Your task to perform on an android device: Search for "usb-c to usb-a" on walmart.com, select the first entry, add it to the cart, then select checkout. Image 0: 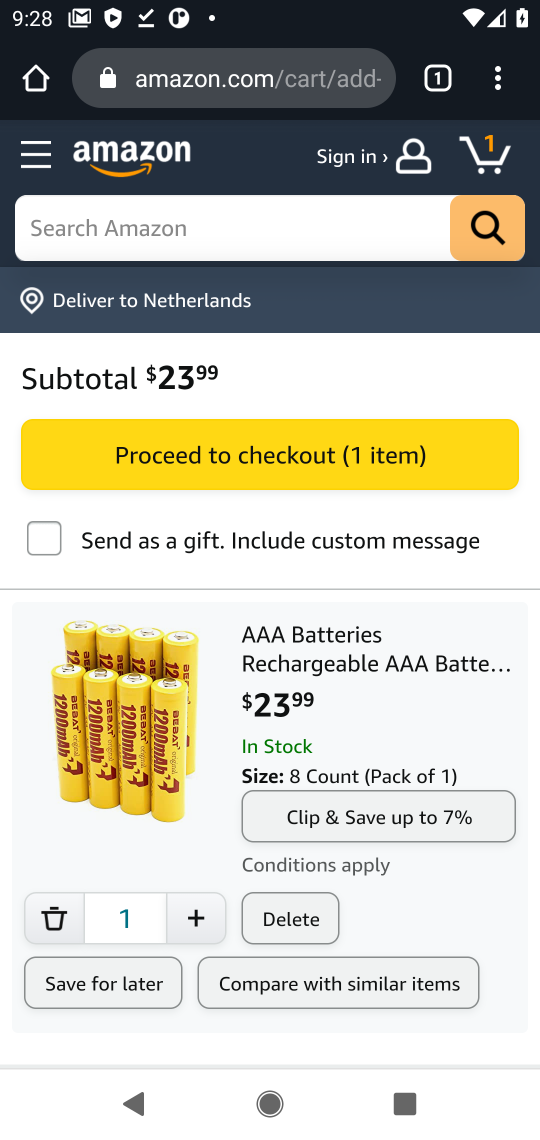
Step 0: click (264, 79)
Your task to perform on an android device: Search for "usb-c to usb-a" on walmart.com, select the first entry, add it to the cart, then select checkout. Image 1: 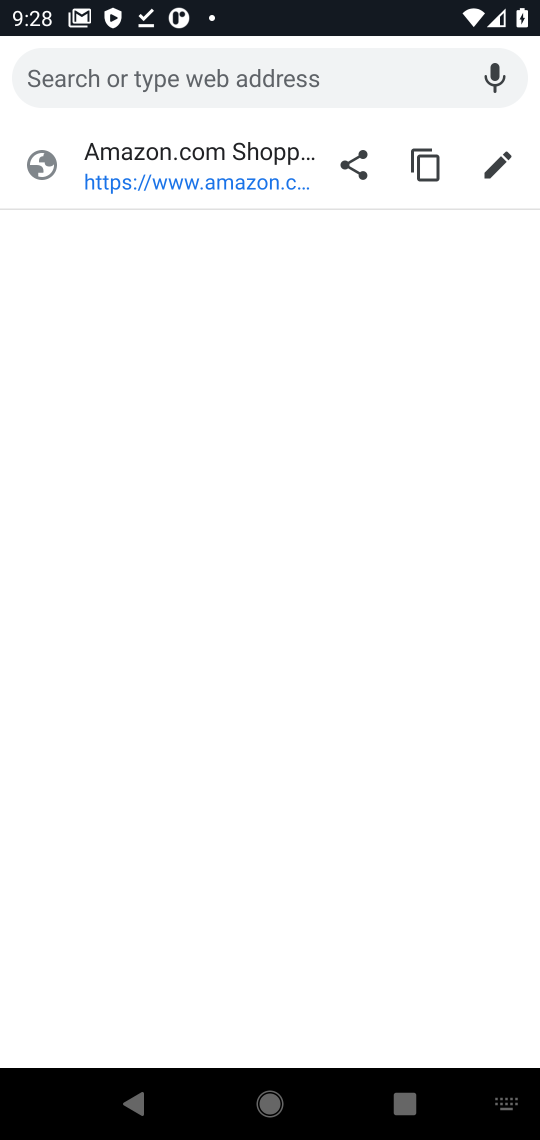
Step 1: type "walmart"
Your task to perform on an android device: Search for "usb-c to usb-a" on walmart.com, select the first entry, add it to the cart, then select checkout. Image 2: 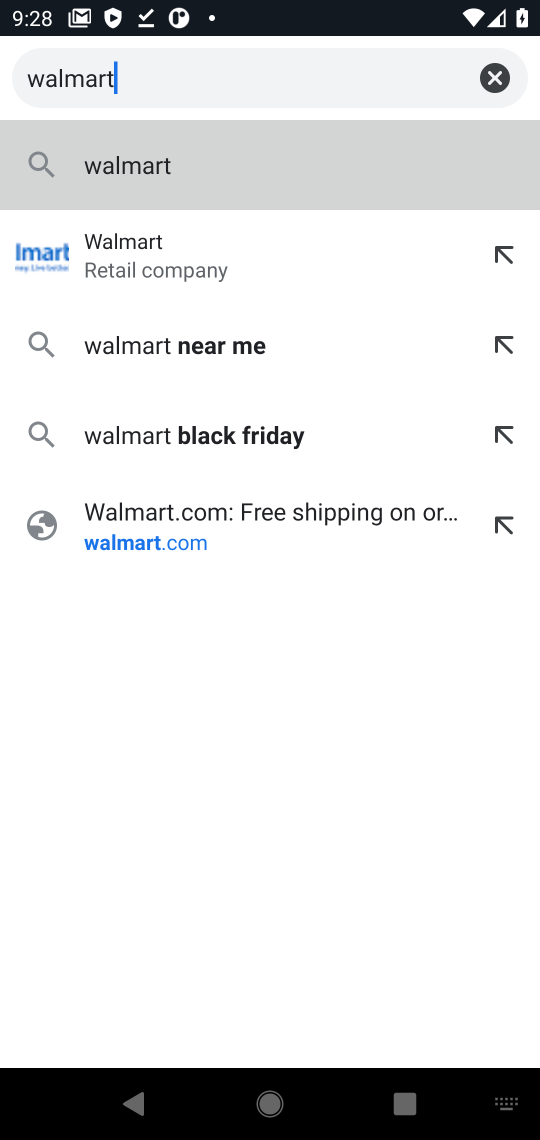
Step 2: click (149, 168)
Your task to perform on an android device: Search for "usb-c to usb-a" on walmart.com, select the first entry, add it to the cart, then select checkout. Image 3: 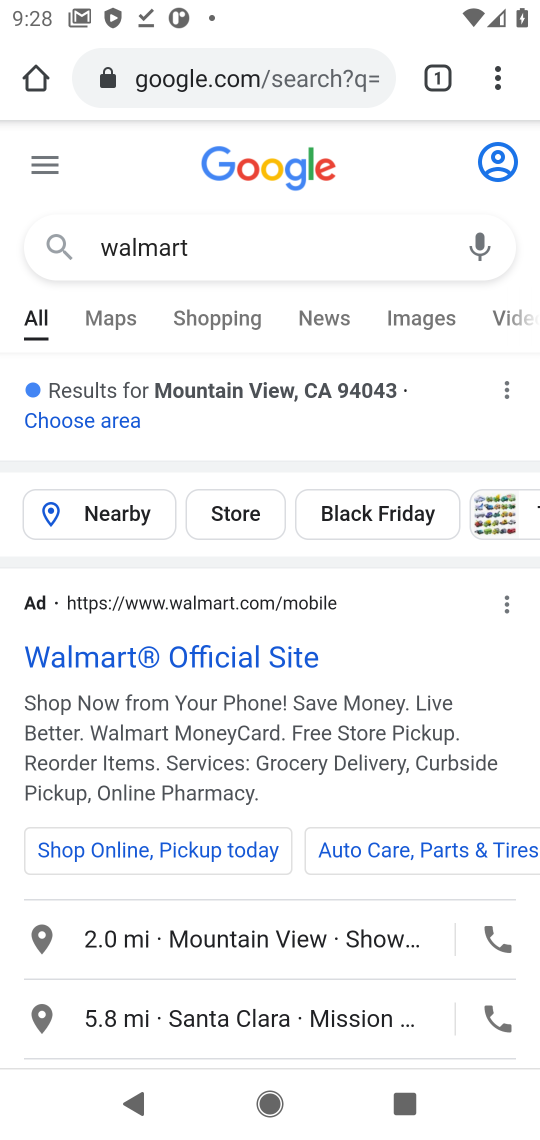
Step 3: drag from (420, 615) to (461, 107)
Your task to perform on an android device: Search for "usb-c to usb-a" on walmart.com, select the first entry, add it to the cart, then select checkout. Image 4: 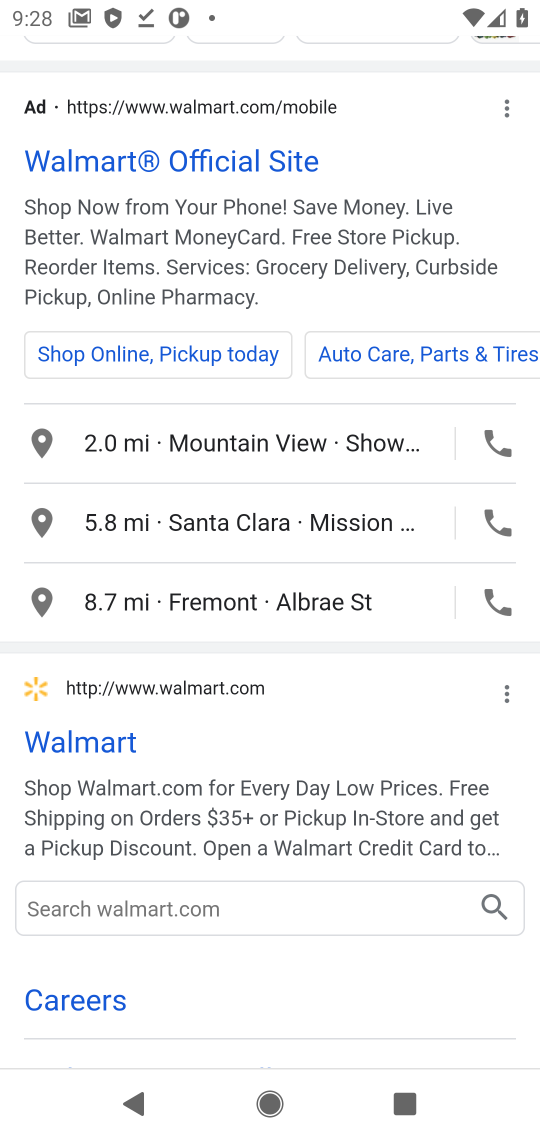
Step 4: click (77, 741)
Your task to perform on an android device: Search for "usb-c to usb-a" on walmart.com, select the first entry, add it to the cart, then select checkout. Image 5: 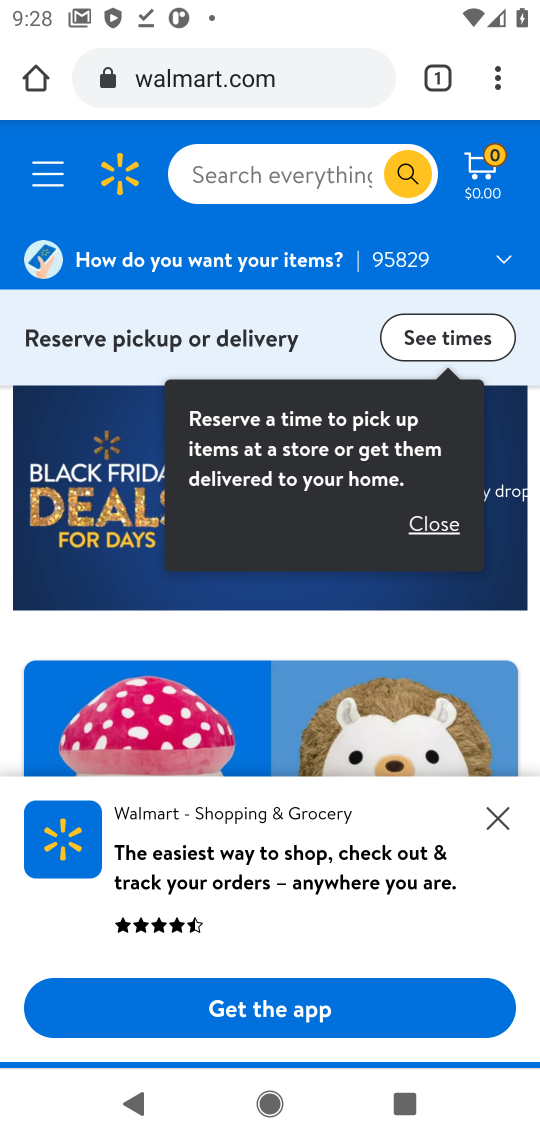
Step 5: click (294, 172)
Your task to perform on an android device: Search for "usb-c to usb-a" on walmart.com, select the first entry, add it to the cart, then select checkout. Image 6: 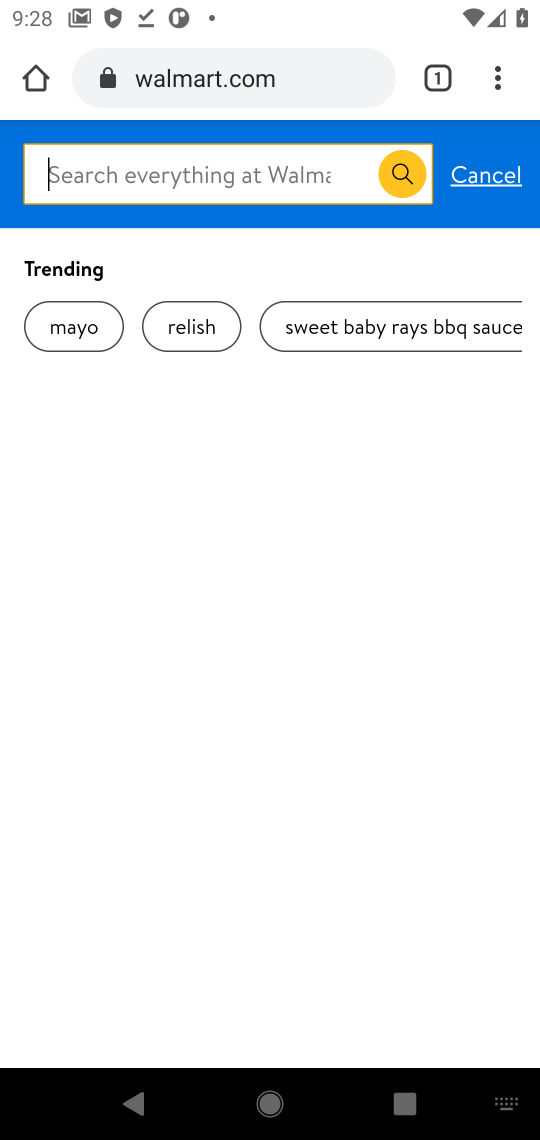
Step 6: type "usb-c to usb-a"
Your task to perform on an android device: Search for "usb-c to usb-a" on walmart.com, select the first entry, add it to the cart, then select checkout. Image 7: 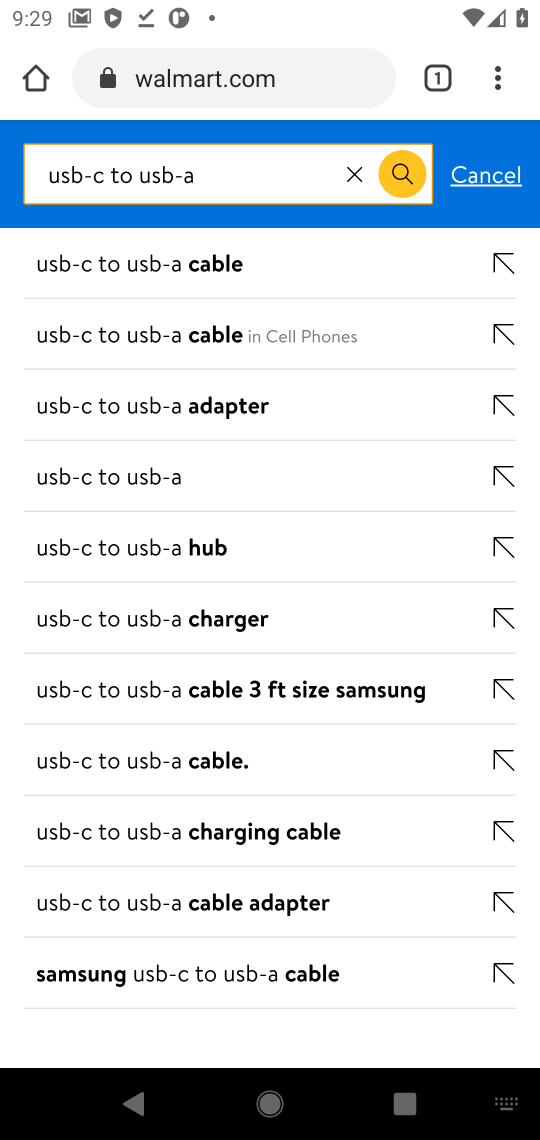
Step 7: press enter
Your task to perform on an android device: Search for "usb-c to usb-a" on walmart.com, select the first entry, add it to the cart, then select checkout. Image 8: 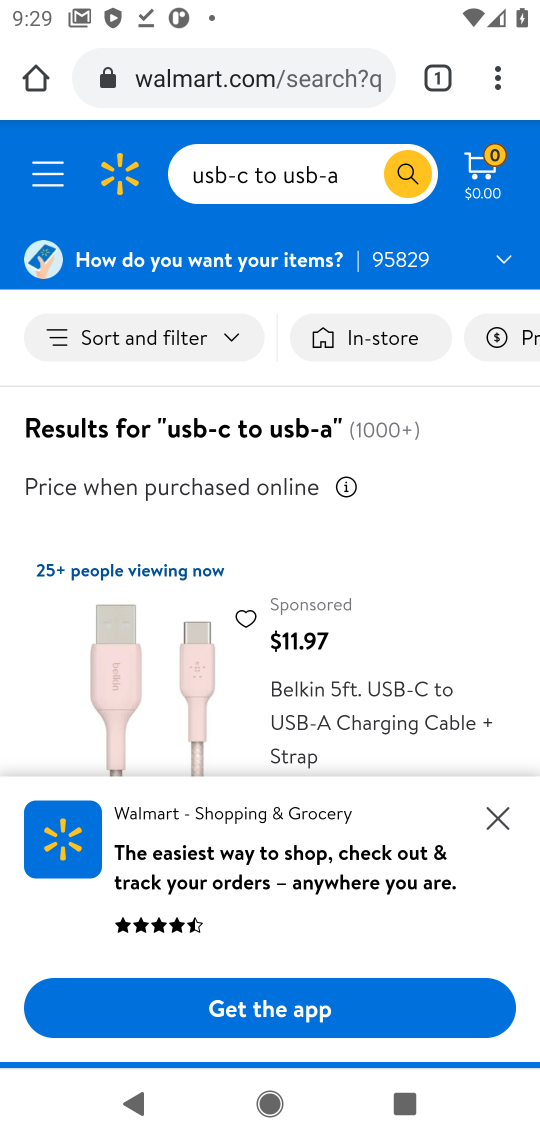
Step 8: click (159, 699)
Your task to perform on an android device: Search for "usb-c to usb-a" on walmart.com, select the first entry, add it to the cart, then select checkout. Image 9: 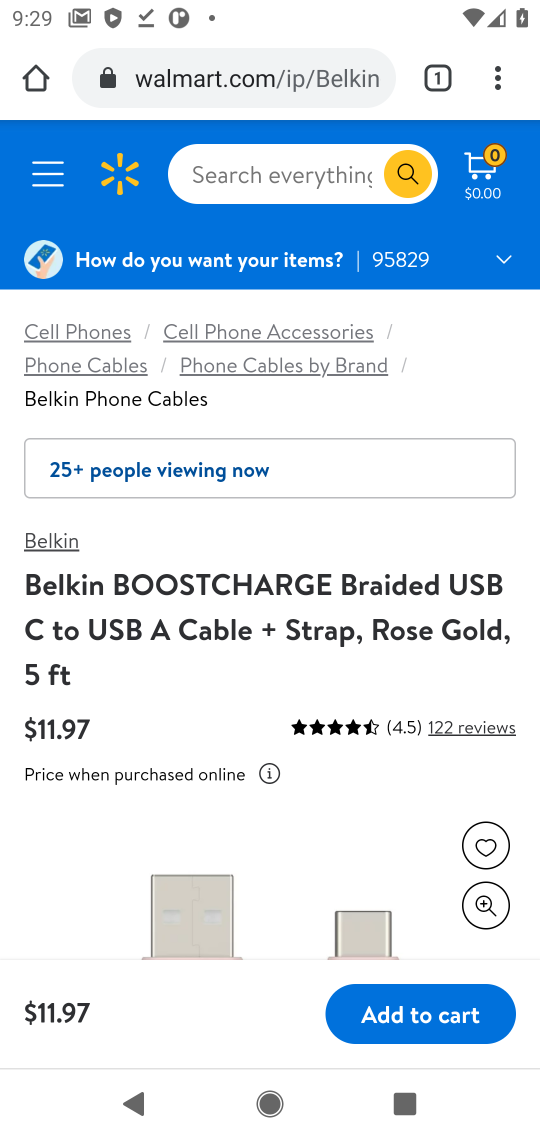
Step 9: drag from (332, 815) to (354, 518)
Your task to perform on an android device: Search for "usb-c to usb-a" on walmart.com, select the first entry, add it to the cart, then select checkout. Image 10: 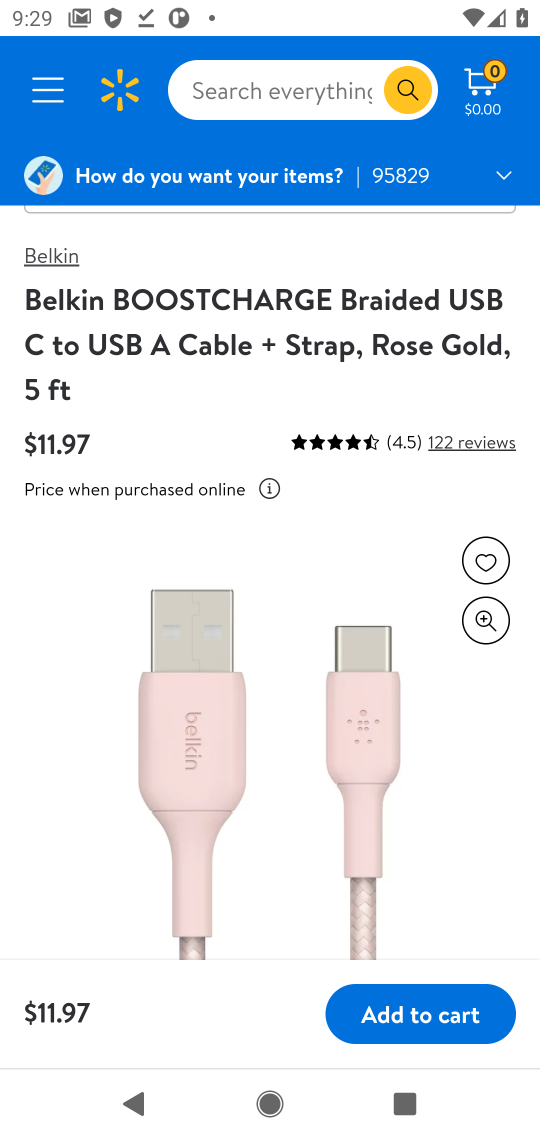
Step 10: click (431, 1009)
Your task to perform on an android device: Search for "usb-c to usb-a" on walmart.com, select the first entry, add it to the cart, then select checkout. Image 11: 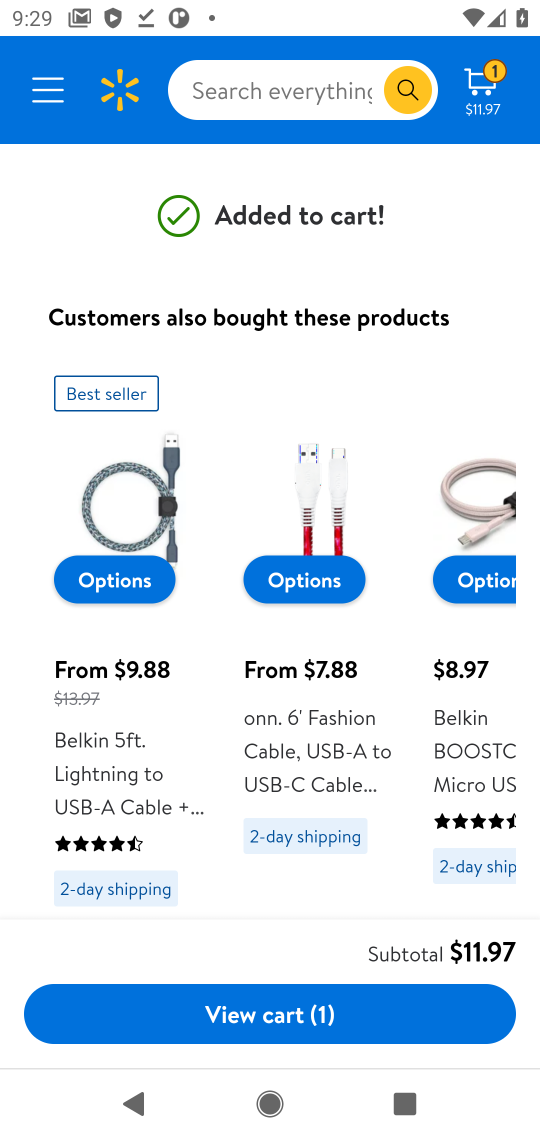
Step 11: click (321, 1017)
Your task to perform on an android device: Search for "usb-c to usb-a" on walmart.com, select the first entry, add it to the cart, then select checkout. Image 12: 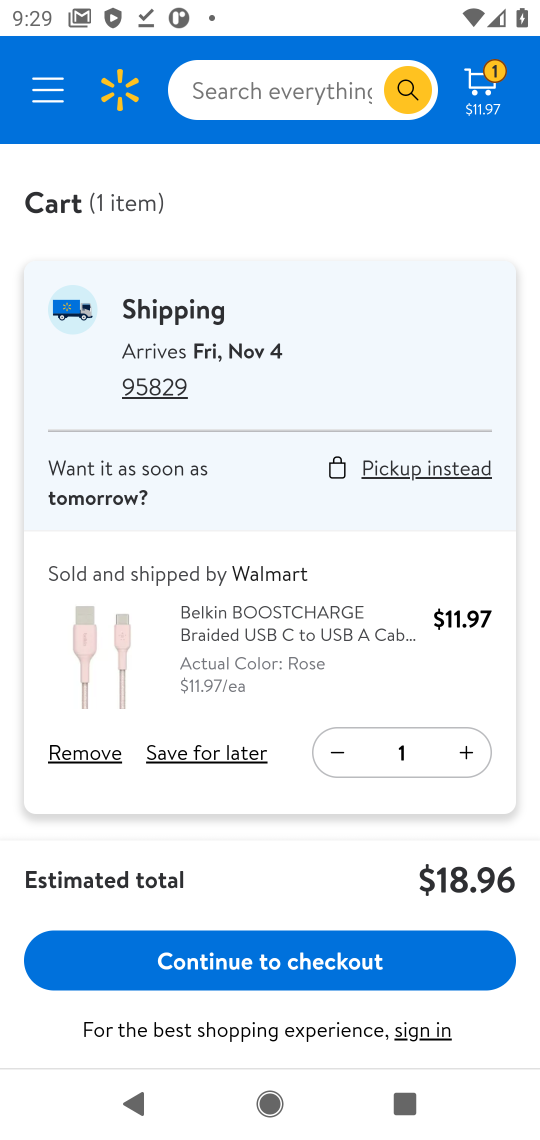
Step 12: click (262, 968)
Your task to perform on an android device: Search for "usb-c to usb-a" on walmart.com, select the first entry, add it to the cart, then select checkout. Image 13: 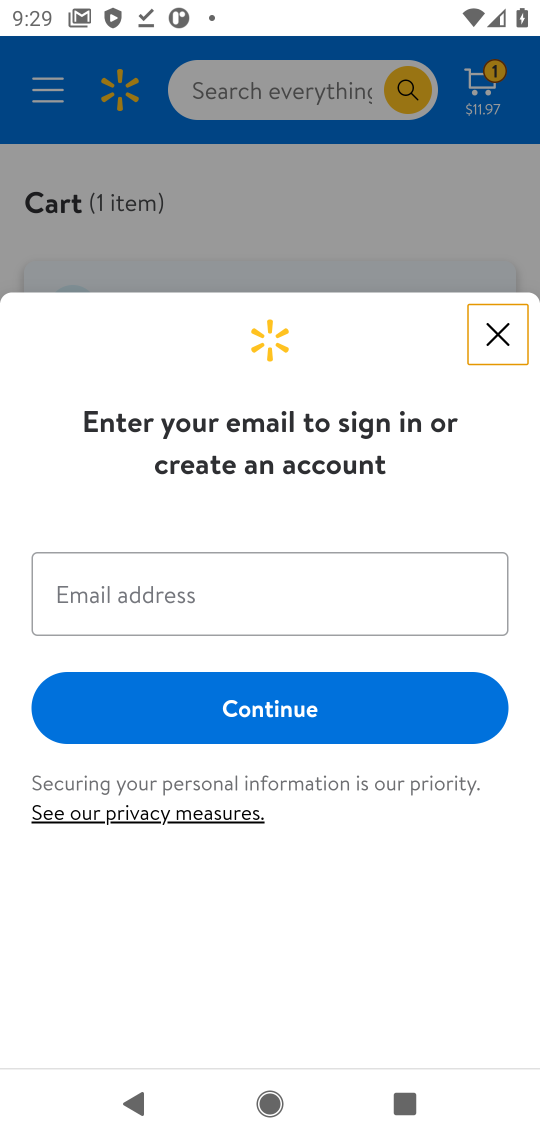
Step 13: task complete